Your task to perform on an android device: Open Maps and search for coffee Image 0: 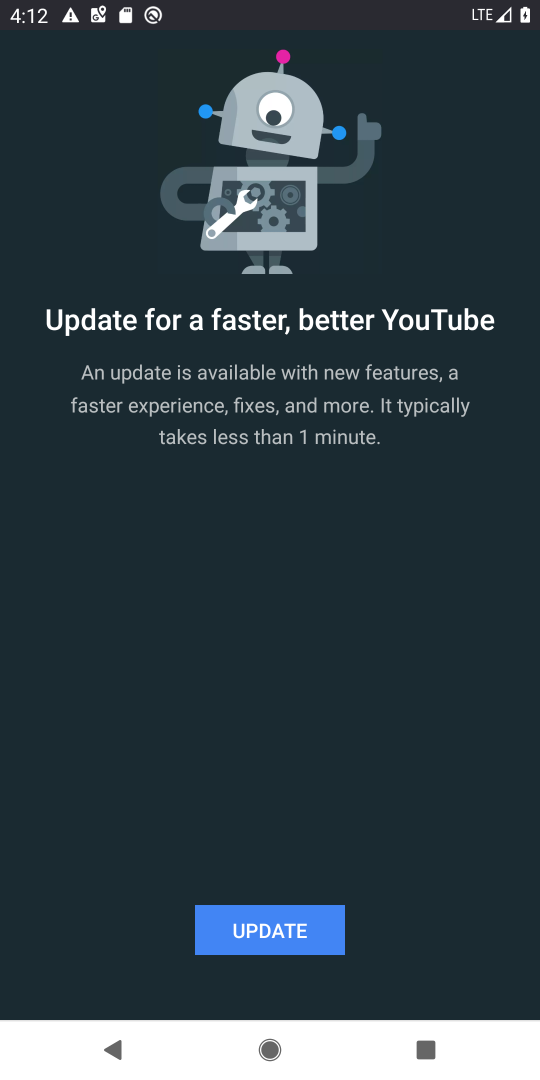
Step 0: press back button
Your task to perform on an android device: Open Maps and search for coffee Image 1: 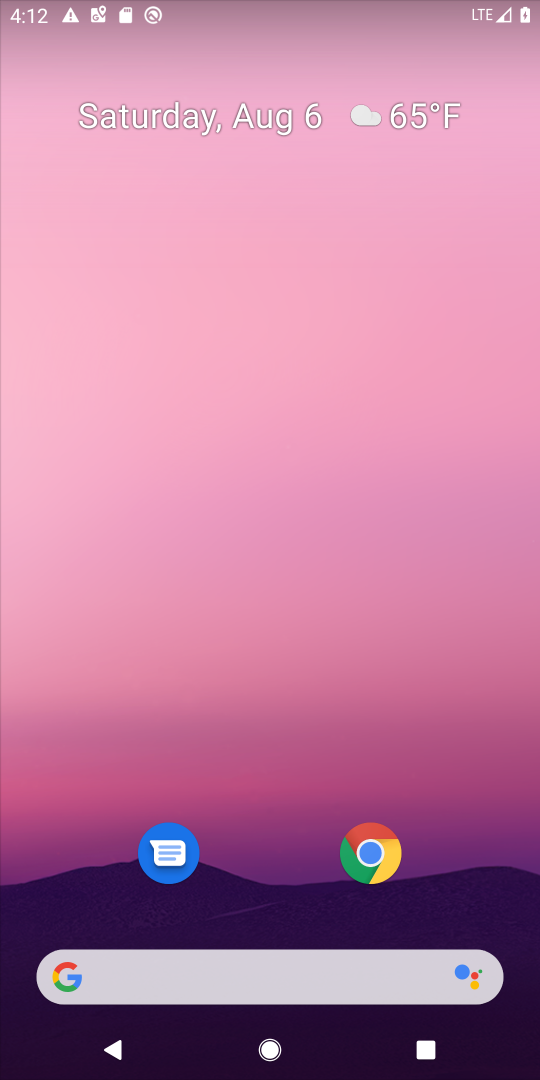
Step 1: drag from (237, 840) to (366, 96)
Your task to perform on an android device: Open Maps and search for coffee Image 2: 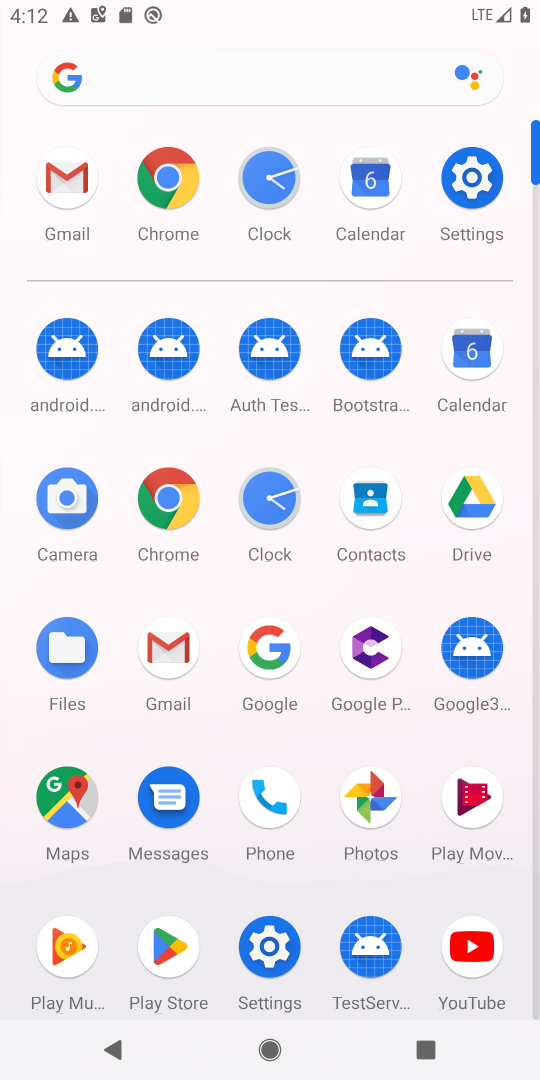
Step 2: click (64, 806)
Your task to perform on an android device: Open Maps and search for coffee Image 3: 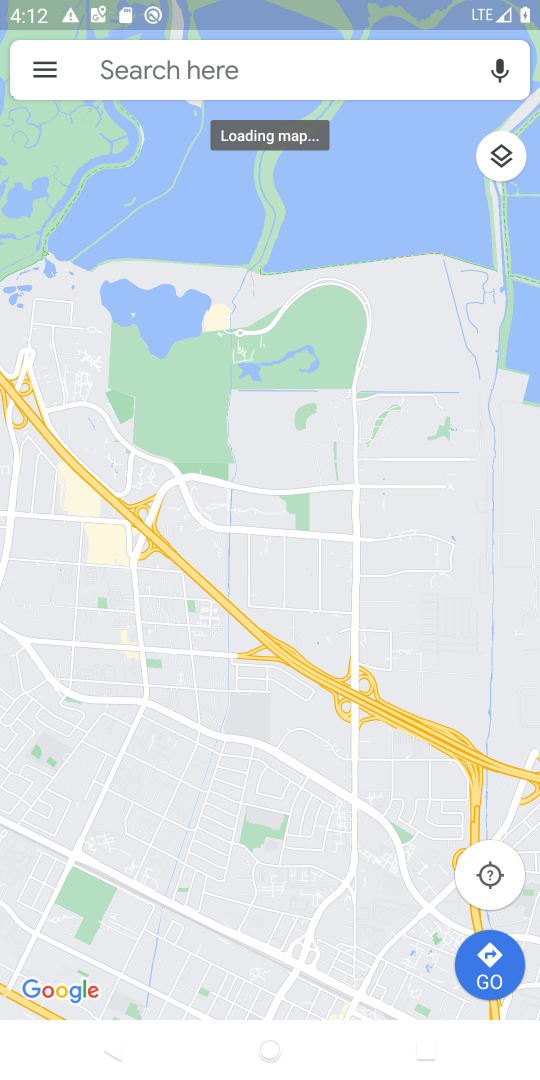
Step 3: click (285, 57)
Your task to perform on an android device: Open Maps and search for coffee Image 4: 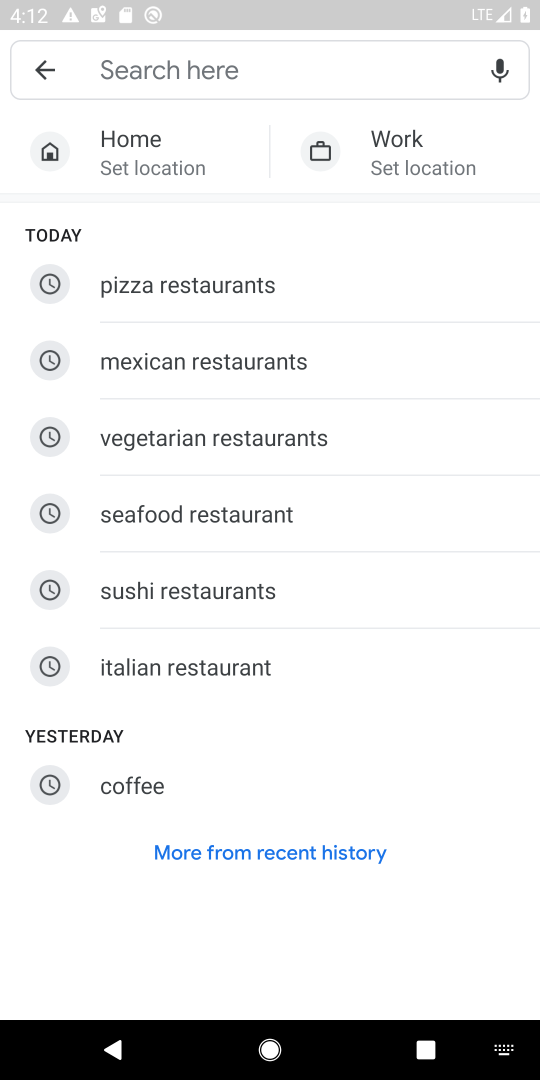
Step 4: click (146, 769)
Your task to perform on an android device: Open Maps and search for coffee Image 5: 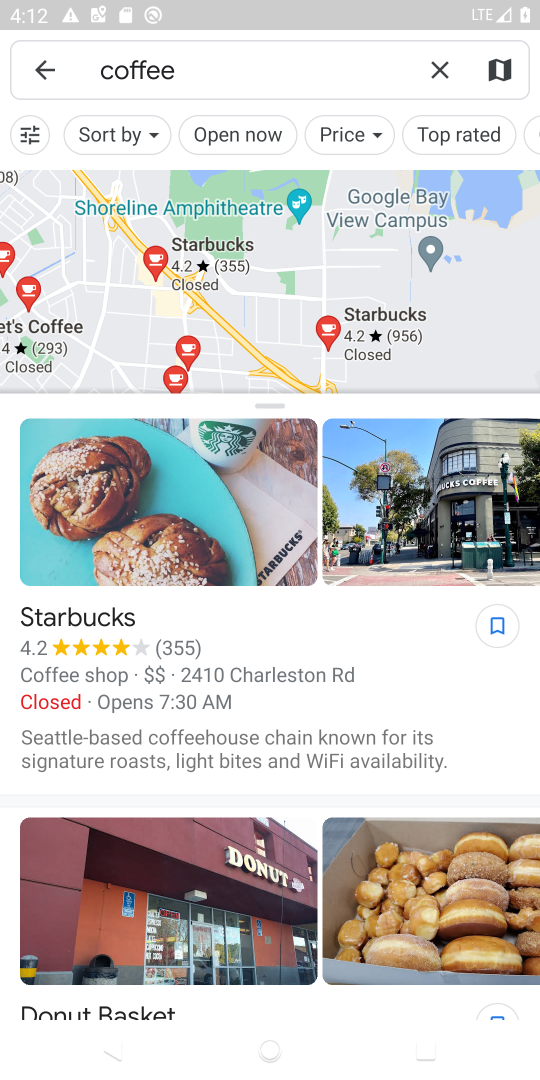
Step 5: task complete